Your task to perform on an android device: Search for razer nari on target.com, select the first entry, add it to the cart, then select checkout. Image 0: 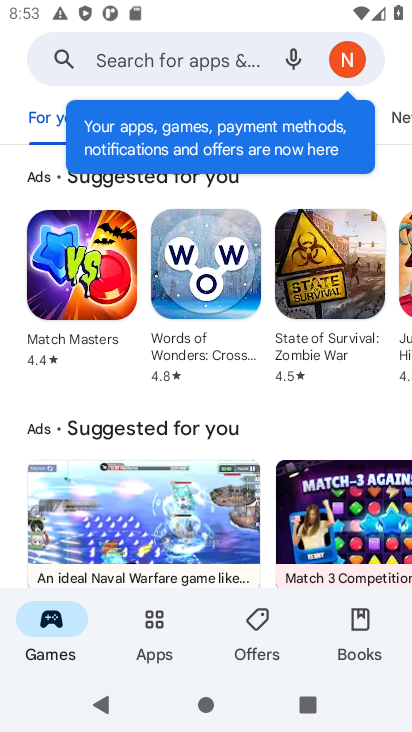
Step 0: press home button
Your task to perform on an android device: Search for razer nari on target.com, select the first entry, add it to the cart, then select checkout. Image 1: 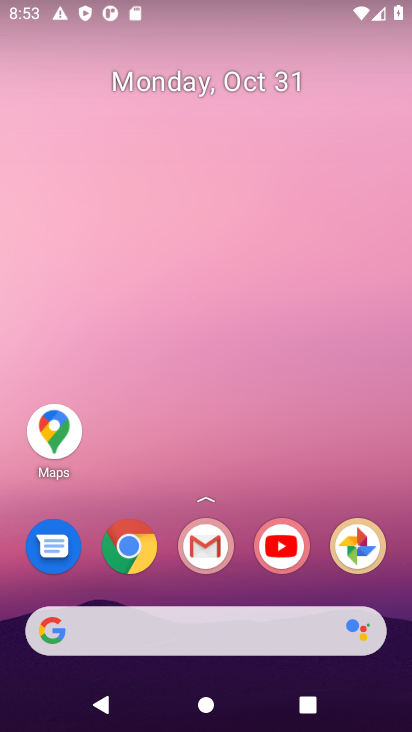
Step 1: click (135, 555)
Your task to perform on an android device: Search for razer nari on target.com, select the first entry, add it to the cart, then select checkout. Image 2: 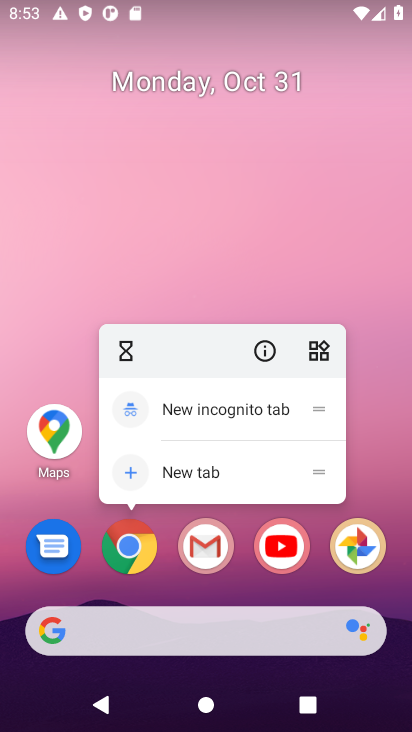
Step 2: click (136, 557)
Your task to perform on an android device: Search for razer nari on target.com, select the first entry, add it to the cart, then select checkout. Image 3: 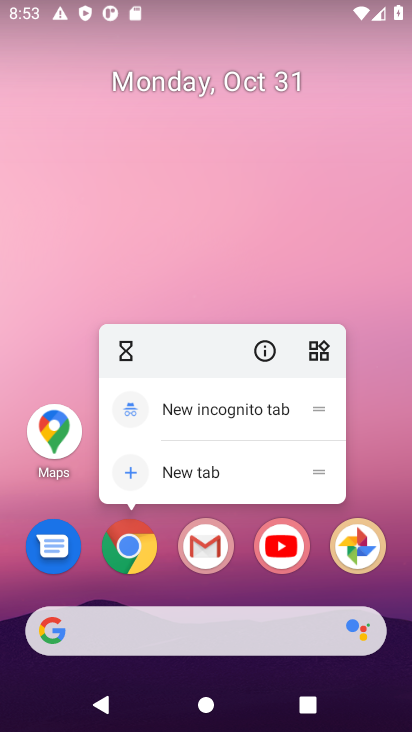
Step 3: click (136, 557)
Your task to perform on an android device: Search for razer nari on target.com, select the first entry, add it to the cart, then select checkout. Image 4: 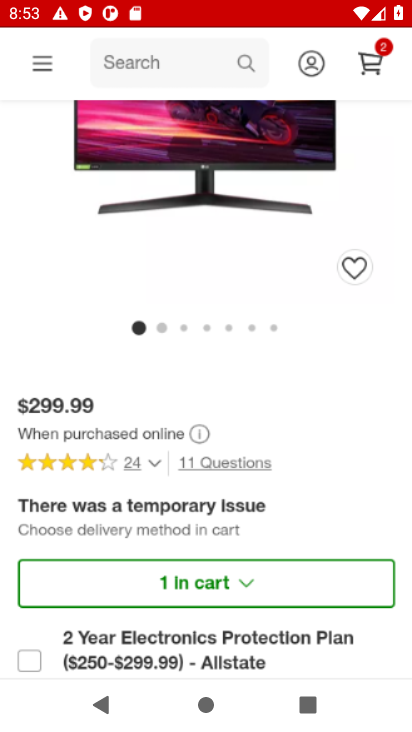
Step 4: click (136, 557)
Your task to perform on an android device: Search for razer nari on target.com, select the first entry, add it to the cart, then select checkout. Image 5: 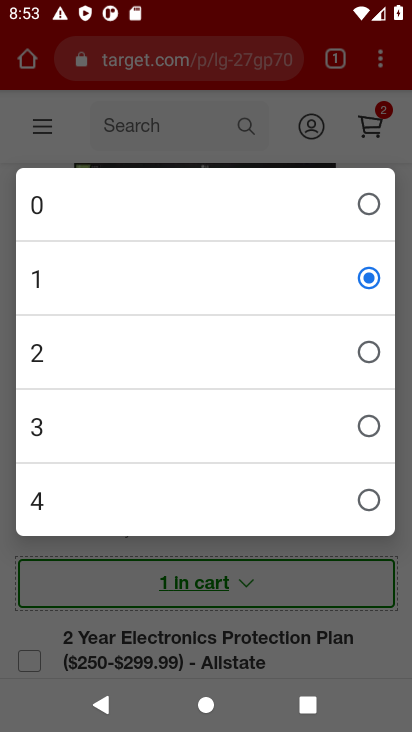
Step 5: click (204, 63)
Your task to perform on an android device: Search for razer nari on target.com, select the first entry, add it to the cart, then select checkout. Image 6: 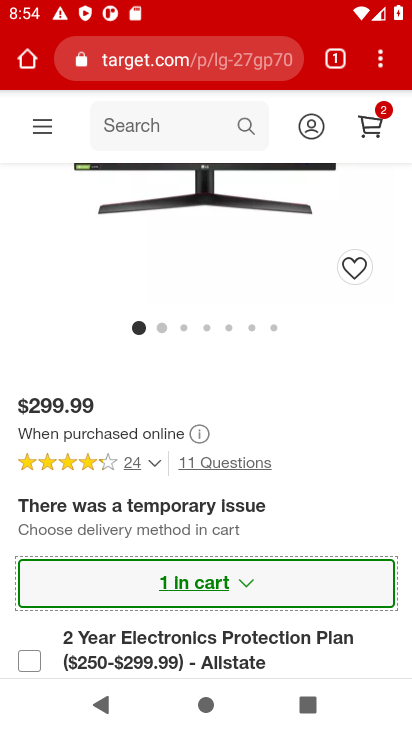
Step 6: click (244, 126)
Your task to perform on an android device: Search for razer nari on target.com, select the first entry, add it to the cart, then select checkout. Image 7: 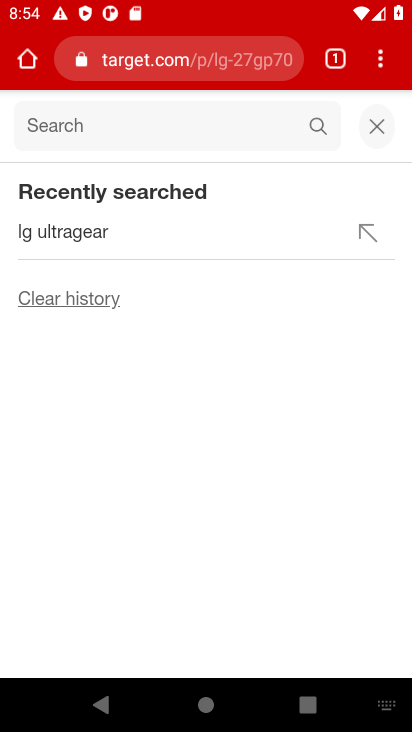
Step 7: type "razer nari"
Your task to perform on an android device: Search for razer nari on target.com, select the first entry, add it to the cart, then select checkout. Image 8: 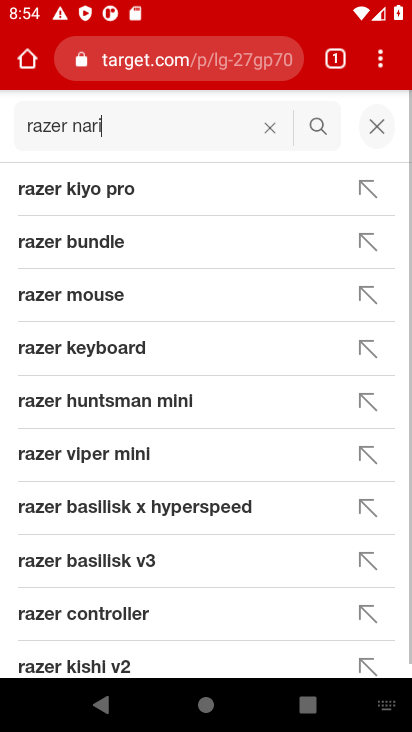
Step 8: press enter
Your task to perform on an android device: Search for razer nari on target.com, select the first entry, add it to the cart, then select checkout. Image 9: 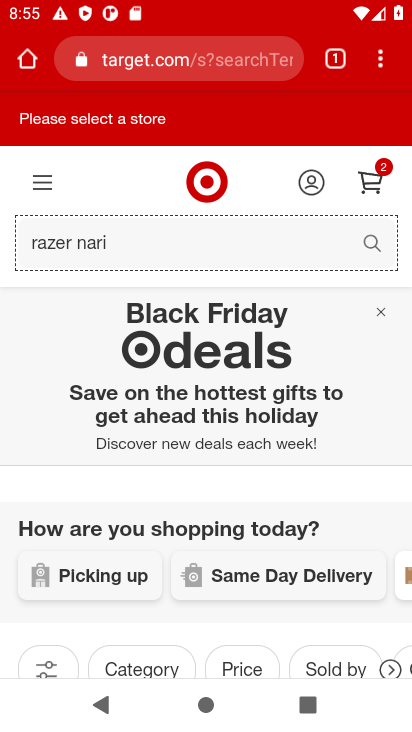
Step 9: drag from (292, 537) to (333, 280)
Your task to perform on an android device: Search for razer nari on target.com, select the first entry, add it to the cart, then select checkout. Image 10: 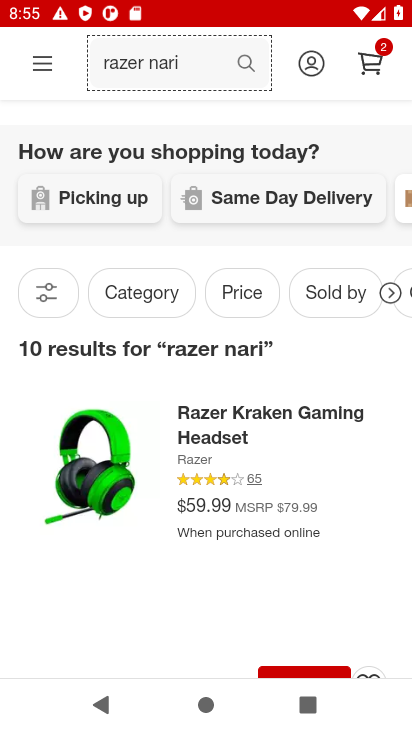
Step 10: drag from (298, 566) to (312, 452)
Your task to perform on an android device: Search for razer nari on target.com, select the first entry, add it to the cart, then select checkout. Image 11: 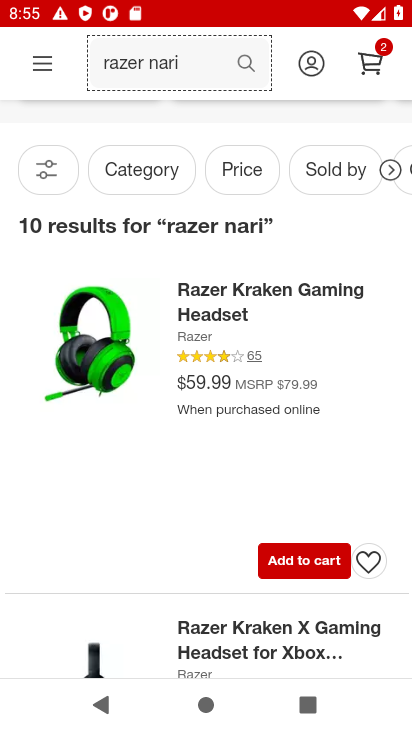
Step 11: click (292, 563)
Your task to perform on an android device: Search for razer nari on target.com, select the first entry, add it to the cart, then select checkout. Image 12: 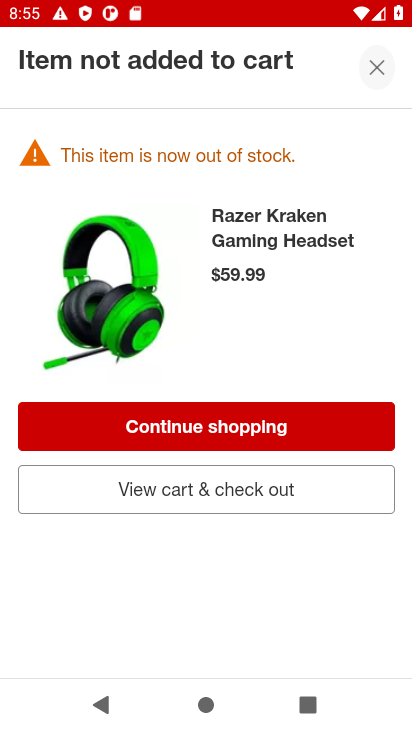
Step 12: click (220, 495)
Your task to perform on an android device: Search for razer nari on target.com, select the first entry, add it to the cart, then select checkout. Image 13: 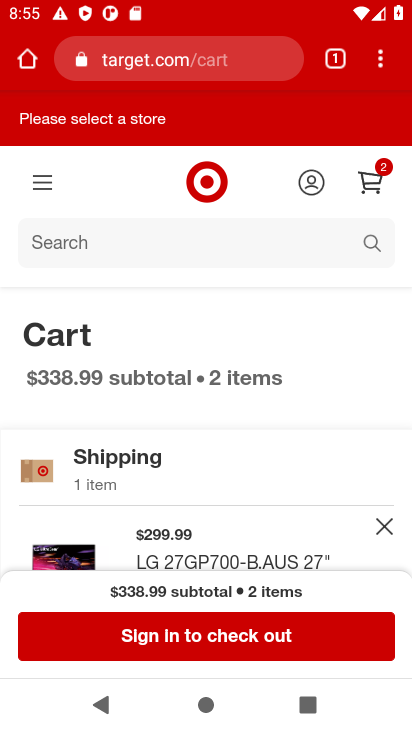
Step 13: click (221, 644)
Your task to perform on an android device: Search for razer nari on target.com, select the first entry, add it to the cart, then select checkout. Image 14: 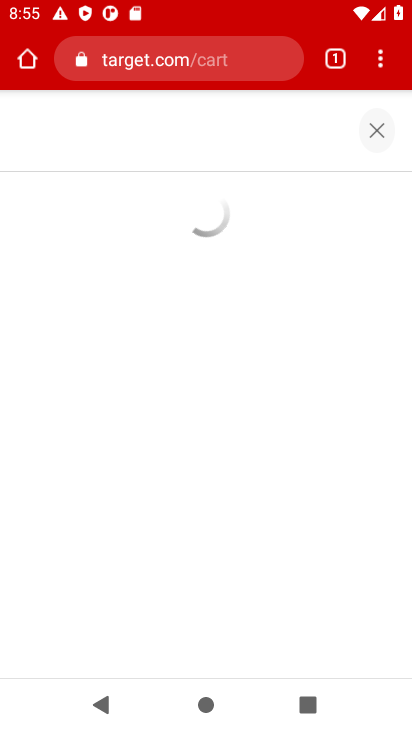
Step 14: task complete